Your task to perform on an android device: open a new tab in the chrome app Image 0: 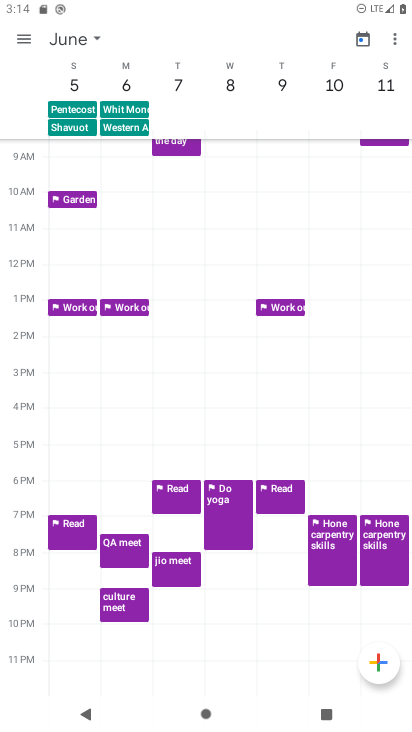
Step 0: press home button
Your task to perform on an android device: open a new tab in the chrome app Image 1: 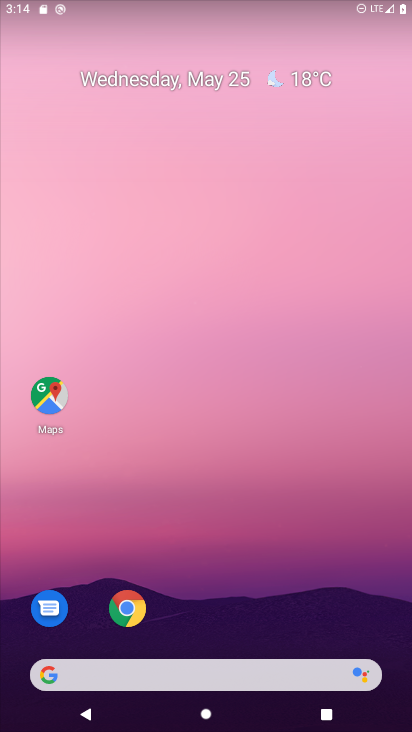
Step 1: click (122, 608)
Your task to perform on an android device: open a new tab in the chrome app Image 2: 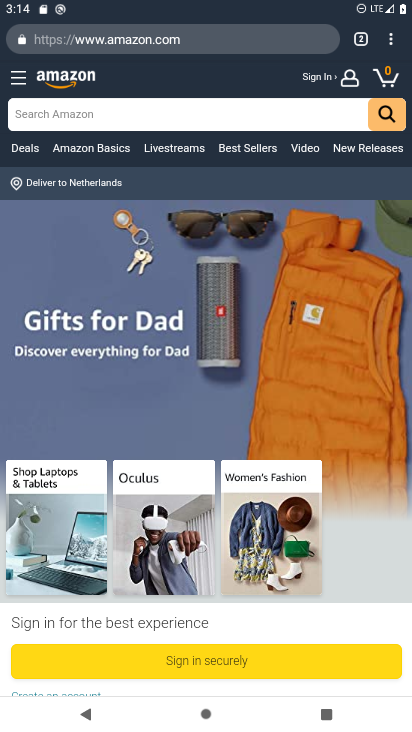
Step 2: click (385, 43)
Your task to perform on an android device: open a new tab in the chrome app Image 3: 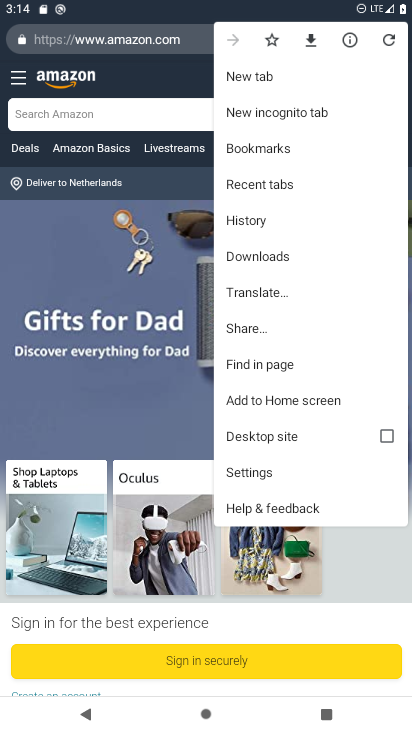
Step 3: click (253, 77)
Your task to perform on an android device: open a new tab in the chrome app Image 4: 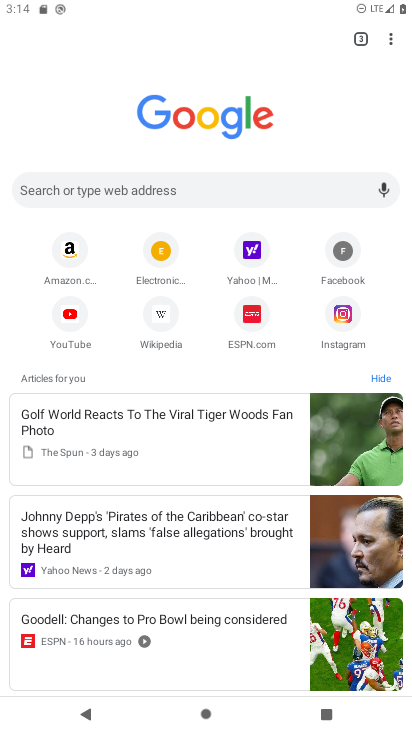
Step 4: task complete